Your task to perform on an android device: Go to CNN.com Image 0: 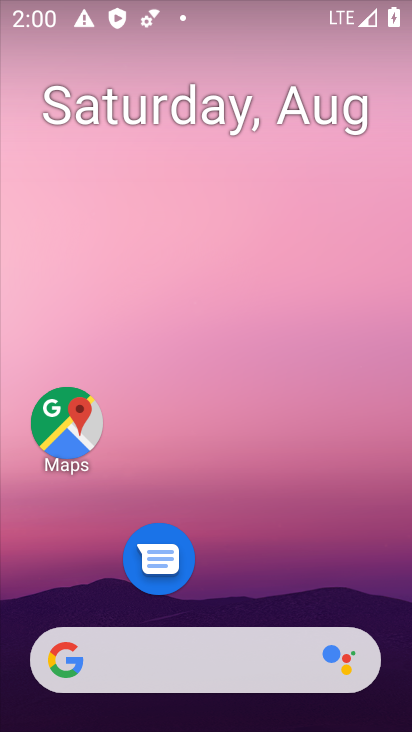
Step 0: drag from (198, 617) to (176, 102)
Your task to perform on an android device: Go to CNN.com Image 1: 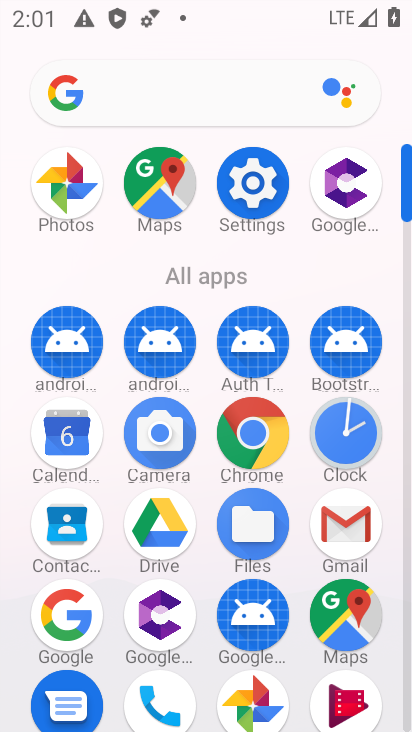
Step 1: click (218, 427)
Your task to perform on an android device: Go to CNN.com Image 2: 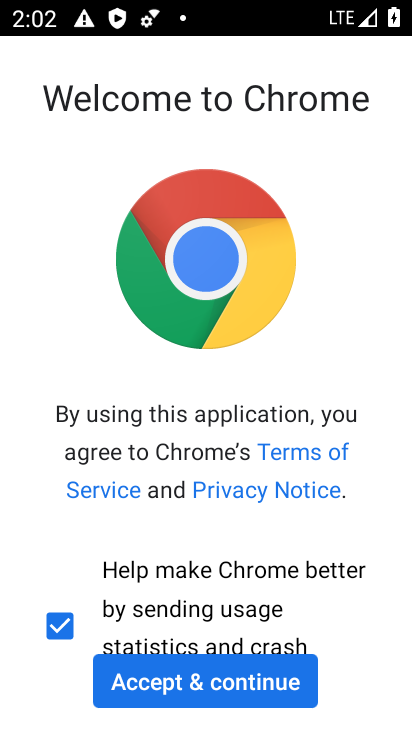
Step 2: click (288, 676)
Your task to perform on an android device: Go to CNN.com Image 3: 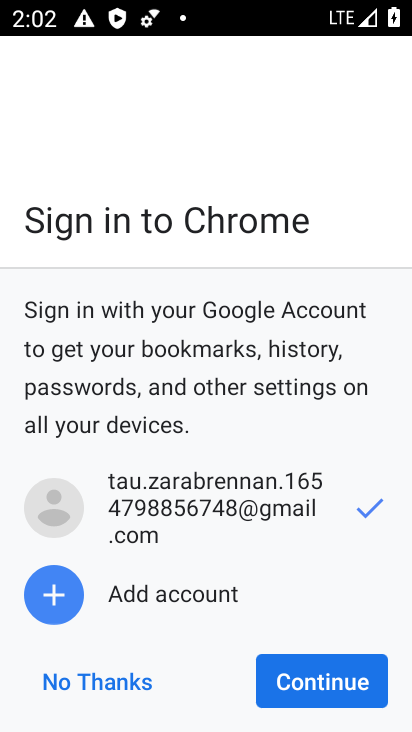
Step 3: click (307, 680)
Your task to perform on an android device: Go to CNN.com Image 4: 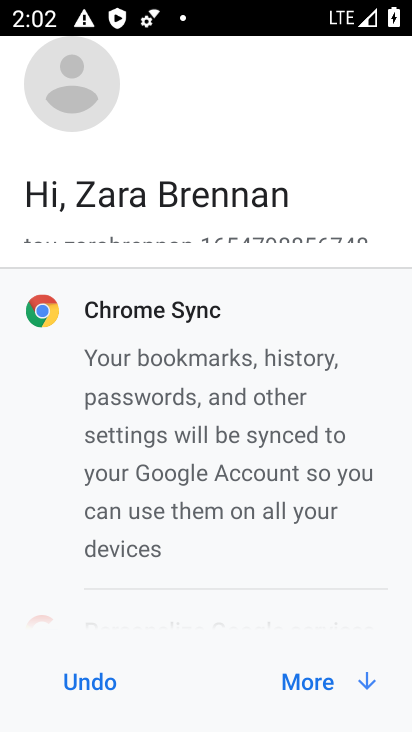
Step 4: click (308, 682)
Your task to perform on an android device: Go to CNN.com Image 5: 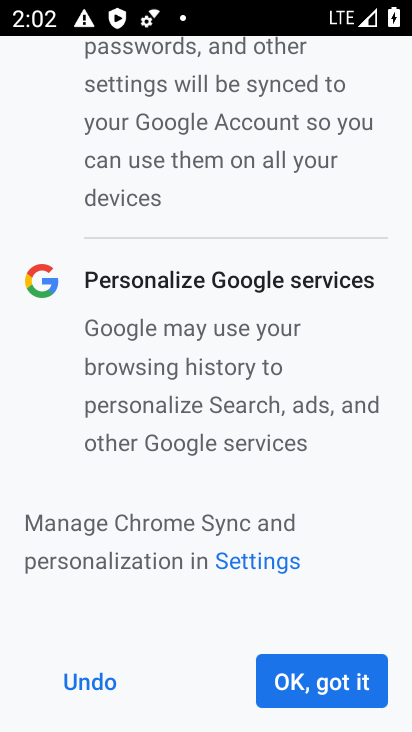
Step 5: click (308, 682)
Your task to perform on an android device: Go to CNN.com Image 6: 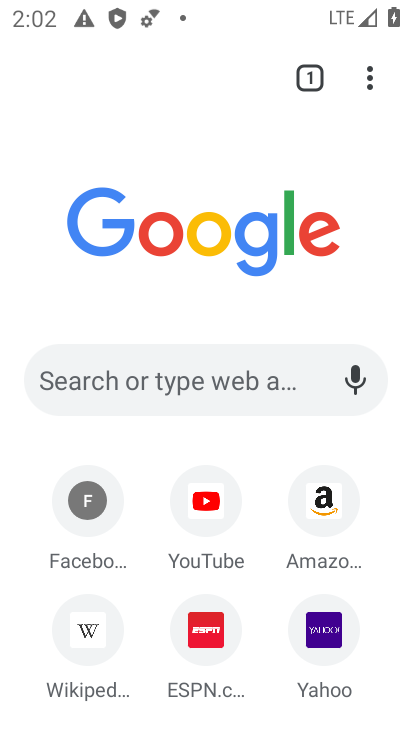
Step 6: click (123, 387)
Your task to perform on an android device: Go to CNN.com Image 7: 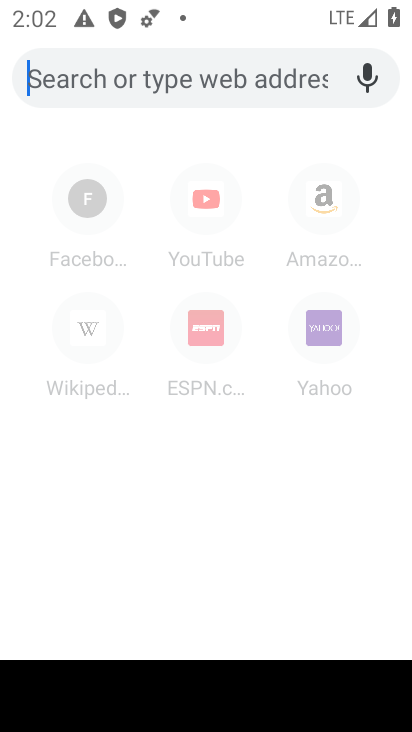
Step 7: type "CNN.com"
Your task to perform on an android device: Go to CNN.com Image 8: 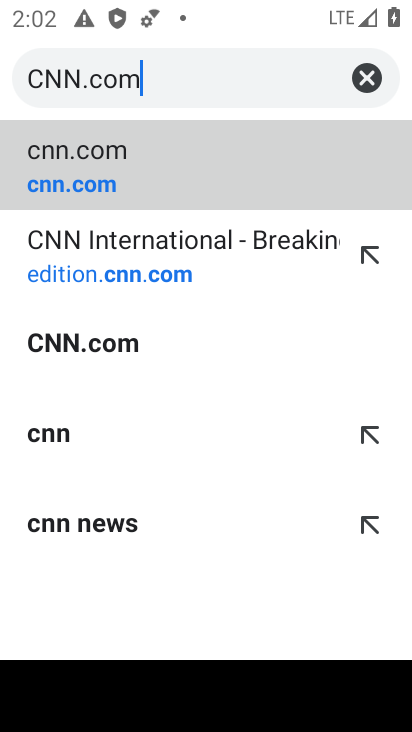
Step 8: type ""
Your task to perform on an android device: Go to CNN.com Image 9: 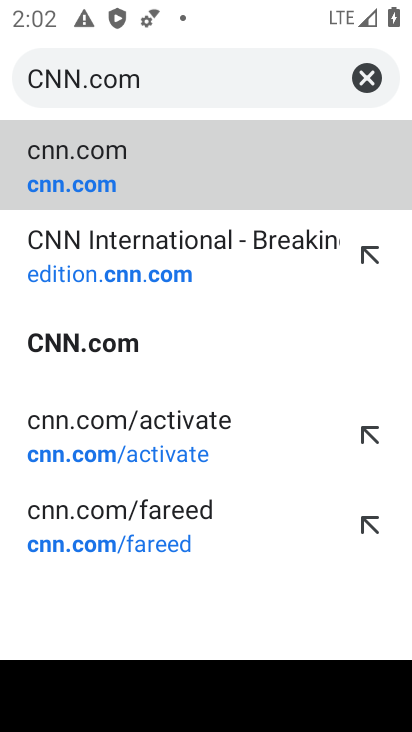
Step 9: click (190, 126)
Your task to perform on an android device: Go to CNN.com Image 10: 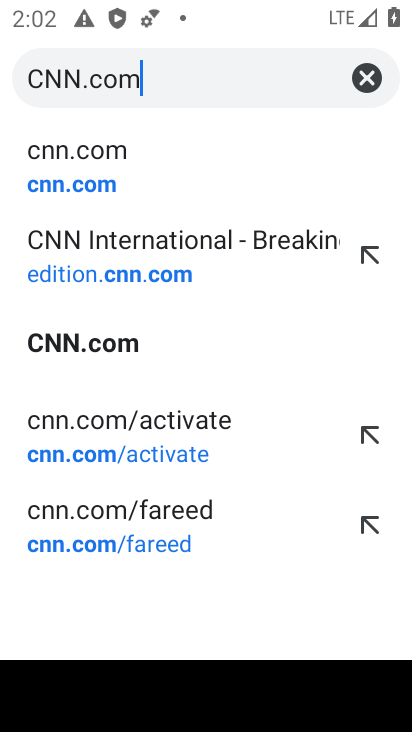
Step 10: click (89, 170)
Your task to perform on an android device: Go to CNN.com Image 11: 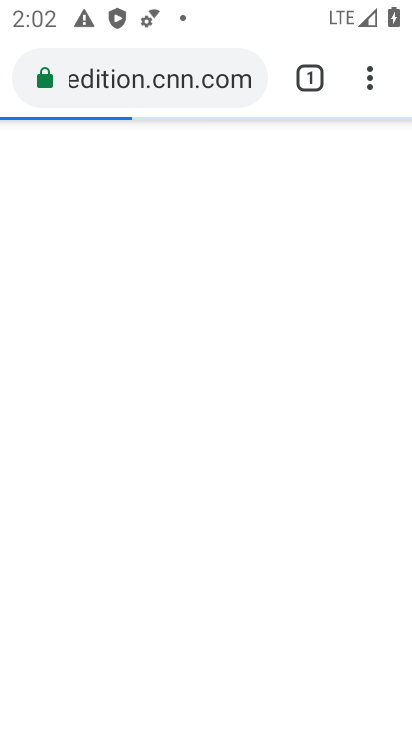
Step 11: task complete